Your task to perform on an android device: Open Chrome and go to settings Image 0: 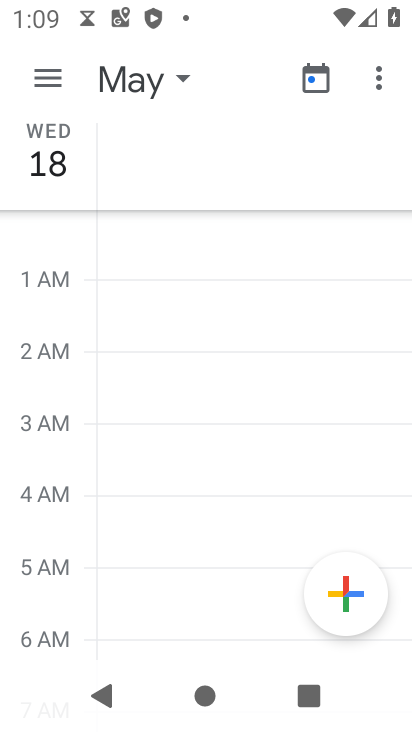
Step 0: press home button
Your task to perform on an android device: Open Chrome and go to settings Image 1: 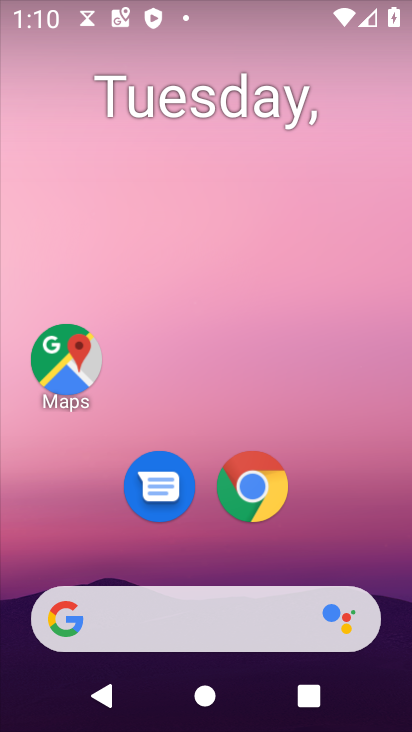
Step 1: drag from (357, 555) to (306, 233)
Your task to perform on an android device: Open Chrome and go to settings Image 2: 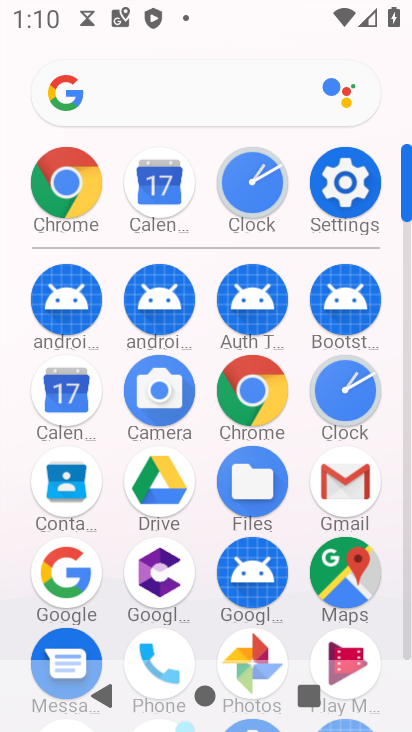
Step 2: click (84, 183)
Your task to perform on an android device: Open Chrome and go to settings Image 3: 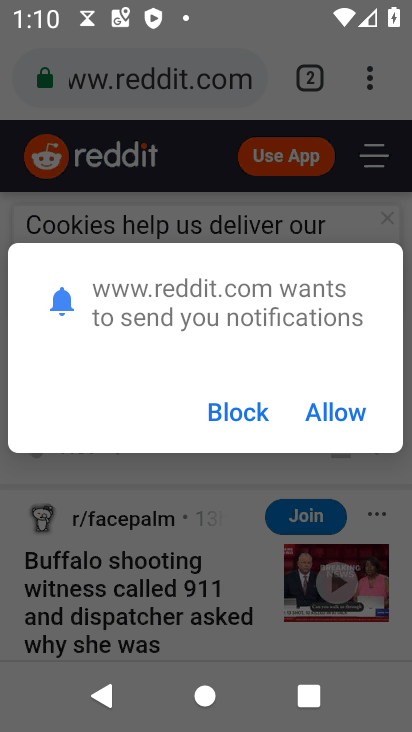
Step 3: click (258, 427)
Your task to perform on an android device: Open Chrome and go to settings Image 4: 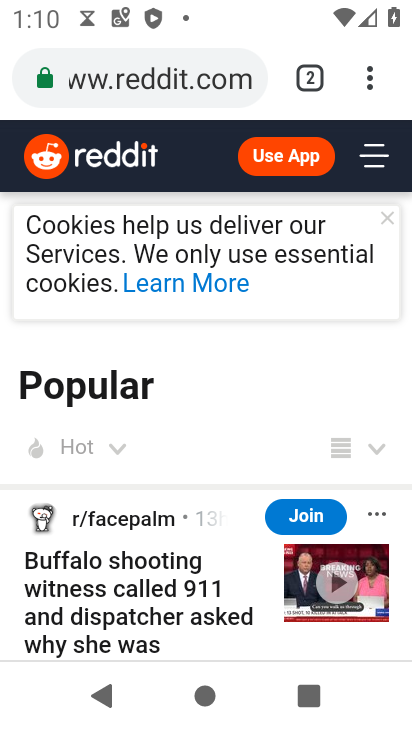
Step 4: click (389, 98)
Your task to perform on an android device: Open Chrome and go to settings Image 5: 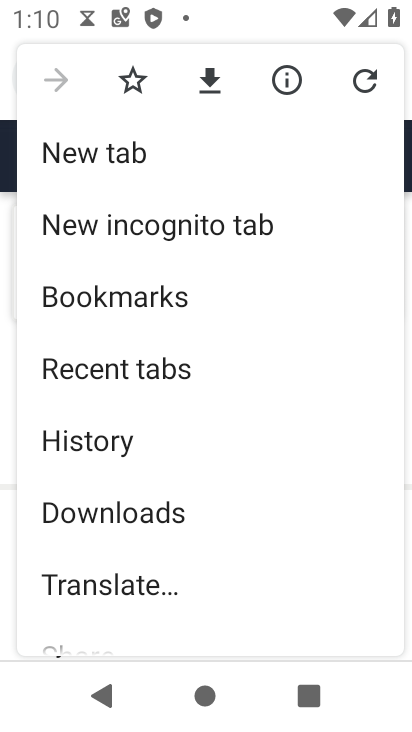
Step 5: drag from (284, 582) to (235, 148)
Your task to perform on an android device: Open Chrome and go to settings Image 6: 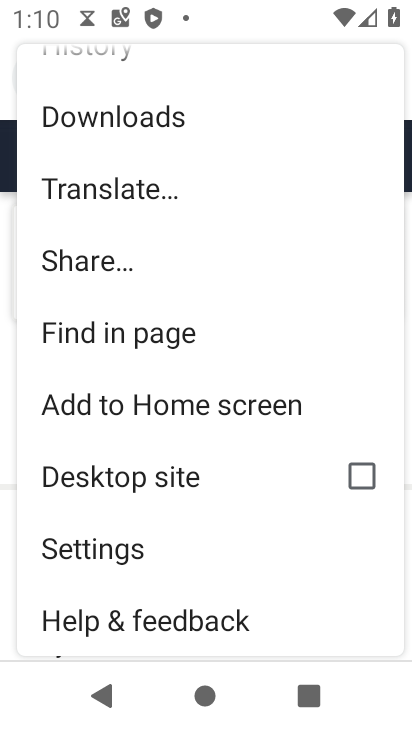
Step 6: click (205, 557)
Your task to perform on an android device: Open Chrome and go to settings Image 7: 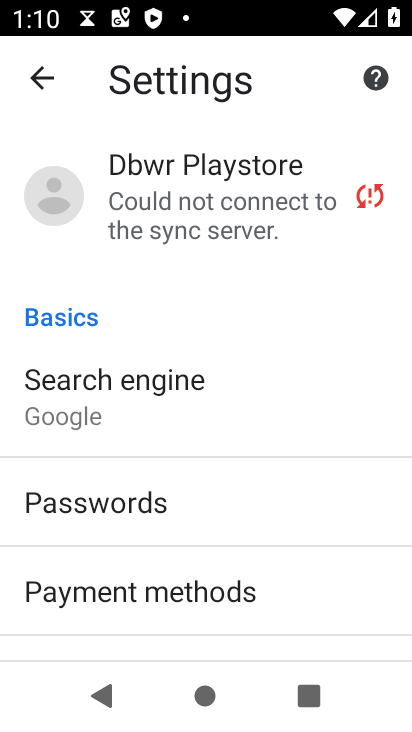
Step 7: task complete